Your task to perform on an android device: change notification settings in the gmail app Image 0: 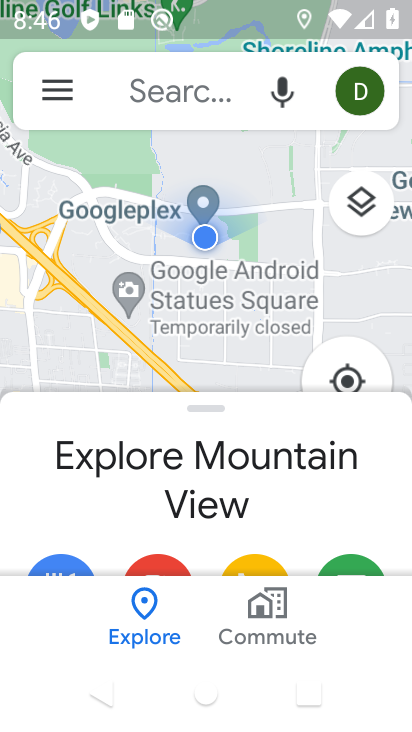
Step 0: press home button
Your task to perform on an android device: change notification settings in the gmail app Image 1: 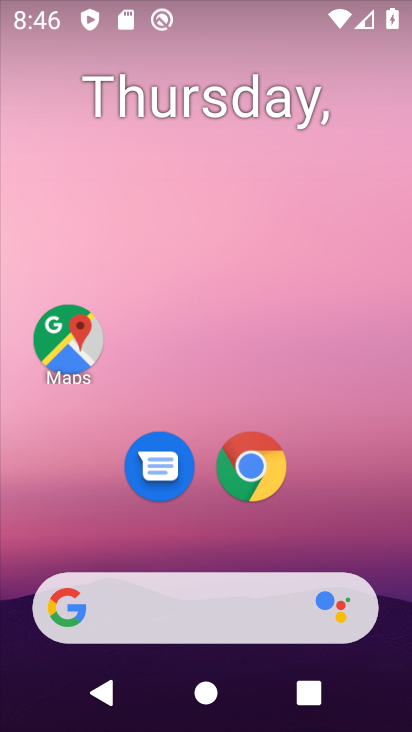
Step 1: drag from (185, 612) to (318, 171)
Your task to perform on an android device: change notification settings in the gmail app Image 2: 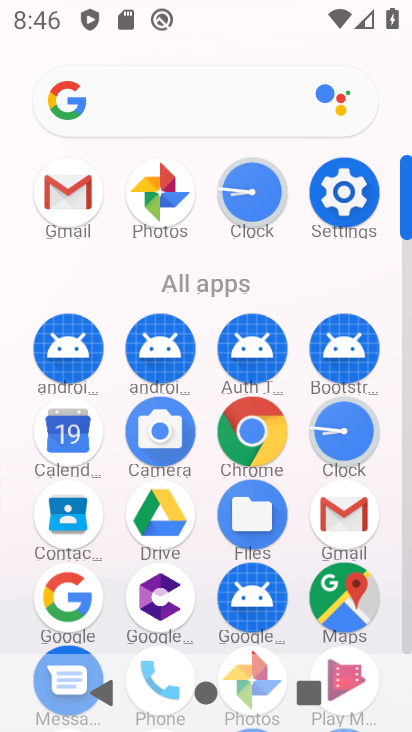
Step 2: click (77, 213)
Your task to perform on an android device: change notification settings in the gmail app Image 3: 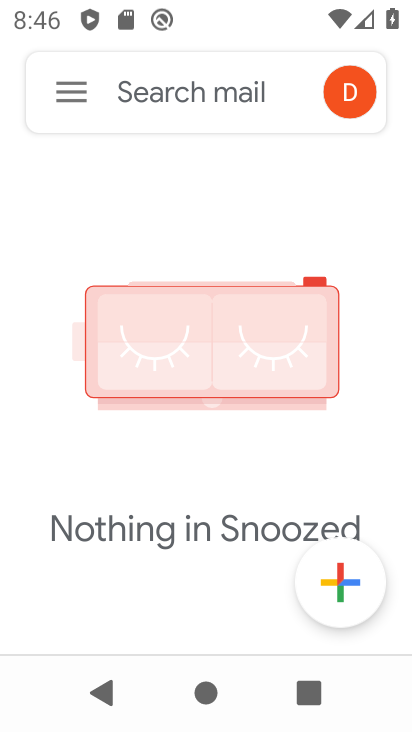
Step 3: click (78, 88)
Your task to perform on an android device: change notification settings in the gmail app Image 4: 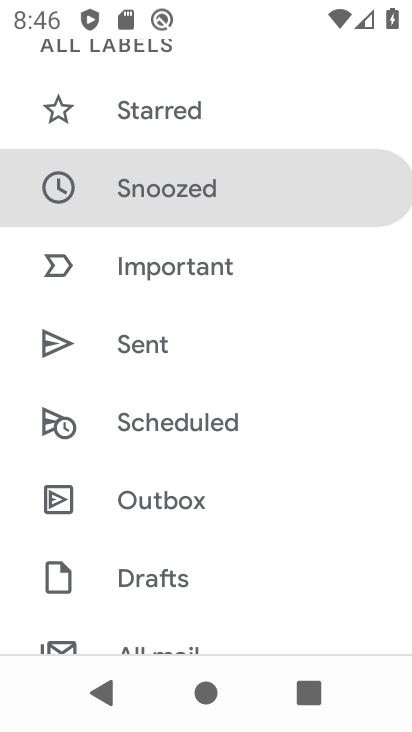
Step 4: drag from (268, 619) to (371, 93)
Your task to perform on an android device: change notification settings in the gmail app Image 5: 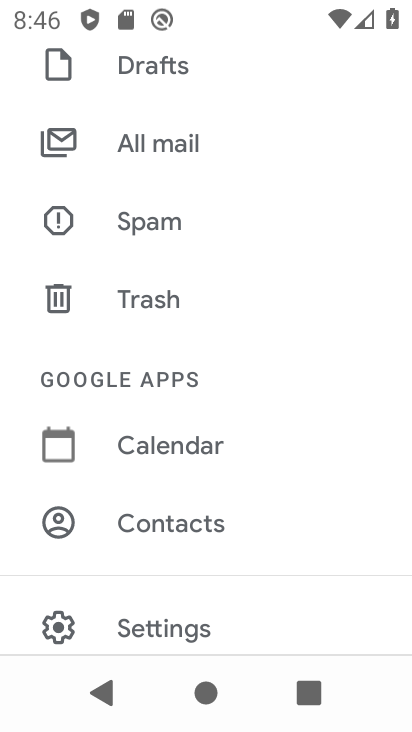
Step 5: drag from (251, 537) to (336, 321)
Your task to perform on an android device: change notification settings in the gmail app Image 6: 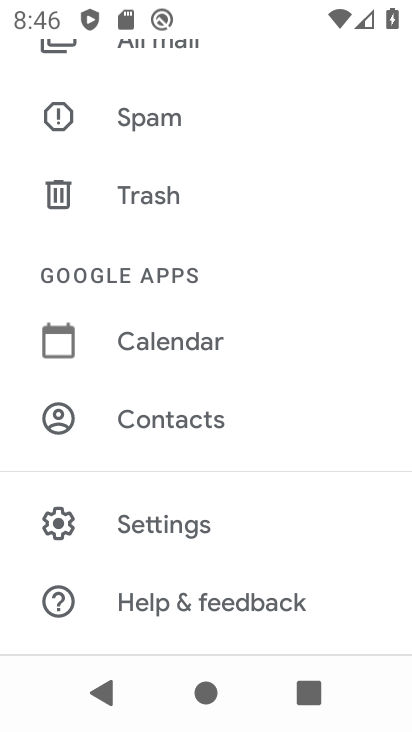
Step 6: click (182, 527)
Your task to perform on an android device: change notification settings in the gmail app Image 7: 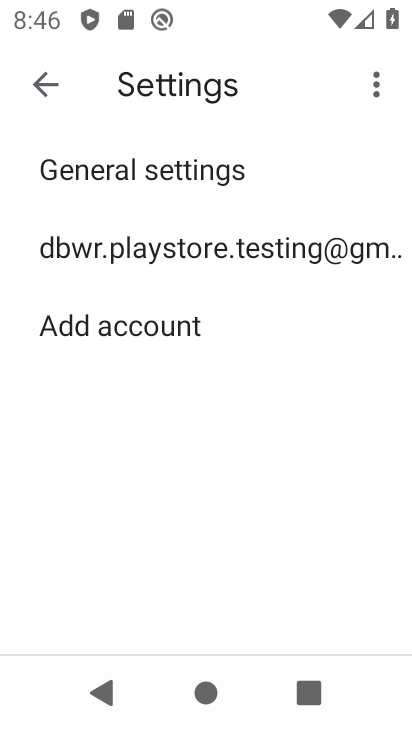
Step 7: click (235, 248)
Your task to perform on an android device: change notification settings in the gmail app Image 8: 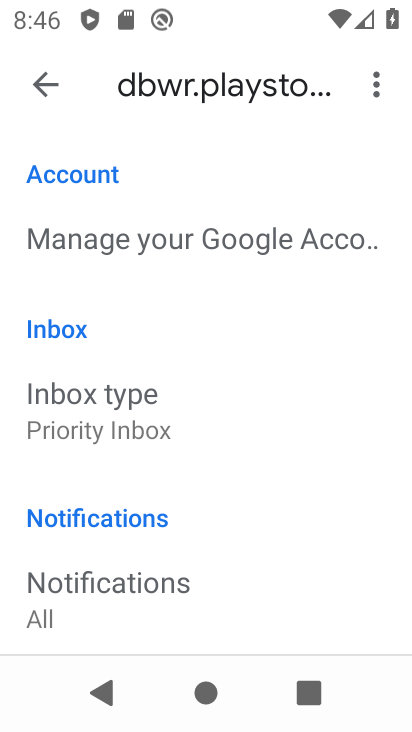
Step 8: drag from (190, 519) to (292, 250)
Your task to perform on an android device: change notification settings in the gmail app Image 9: 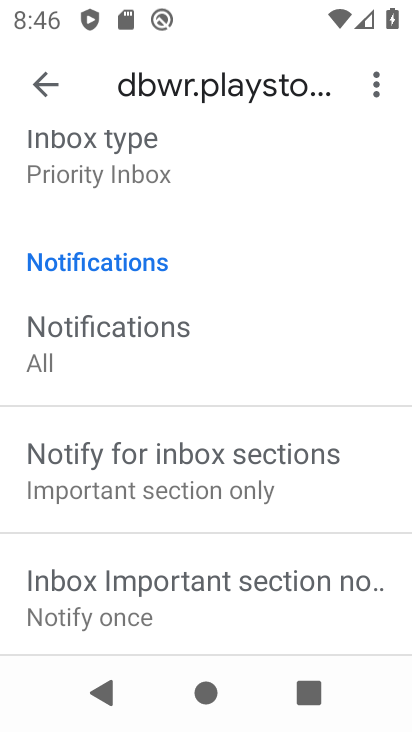
Step 9: click (72, 338)
Your task to perform on an android device: change notification settings in the gmail app Image 10: 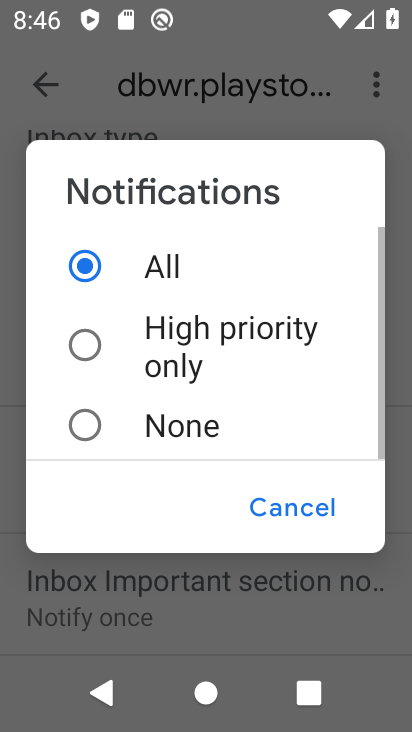
Step 10: click (86, 427)
Your task to perform on an android device: change notification settings in the gmail app Image 11: 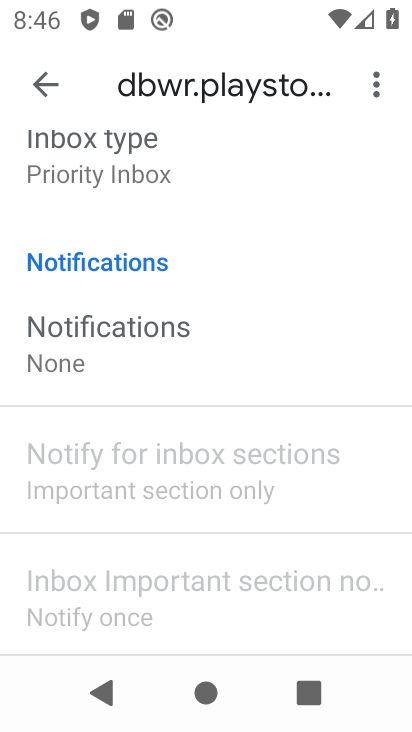
Step 11: task complete